Your task to perform on an android device: change notifications settings Image 0: 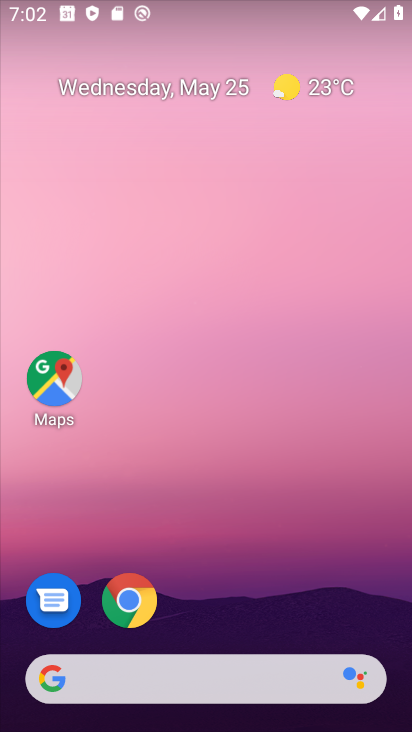
Step 0: drag from (268, 614) to (279, 258)
Your task to perform on an android device: change notifications settings Image 1: 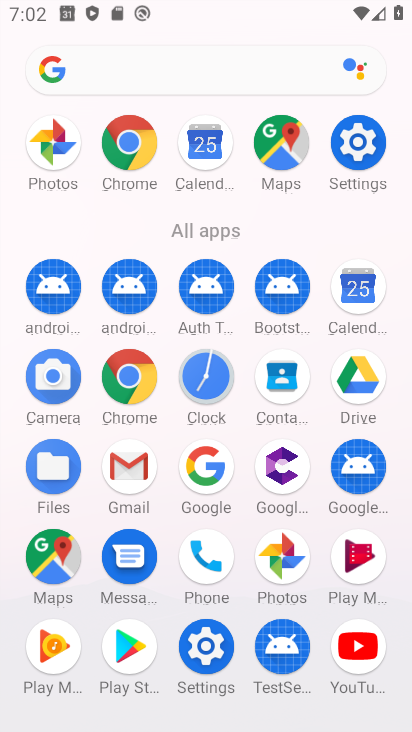
Step 1: click (357, 141)
Your task to perform on an android device: change notifications settings Image 2: 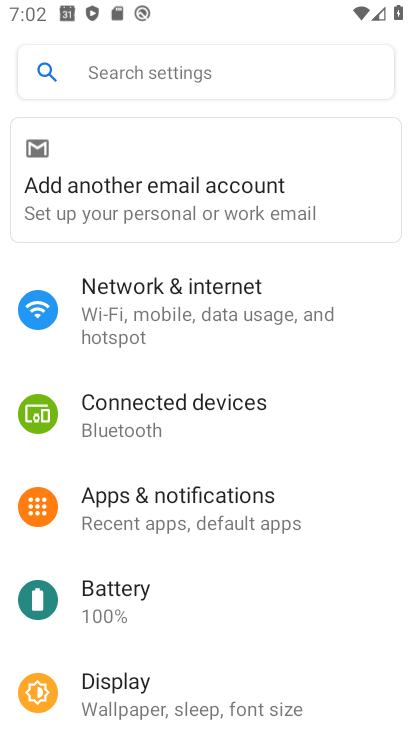
Step 2: click (208, 493)
Your task to perform on an android device: change notifications settings Image 3: 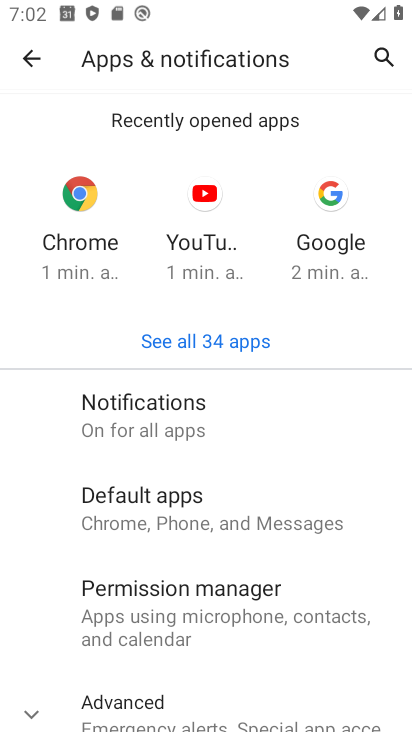
Step 3: click (172, 398)
Your task to perform on an android device: change notifications settings Image 4: 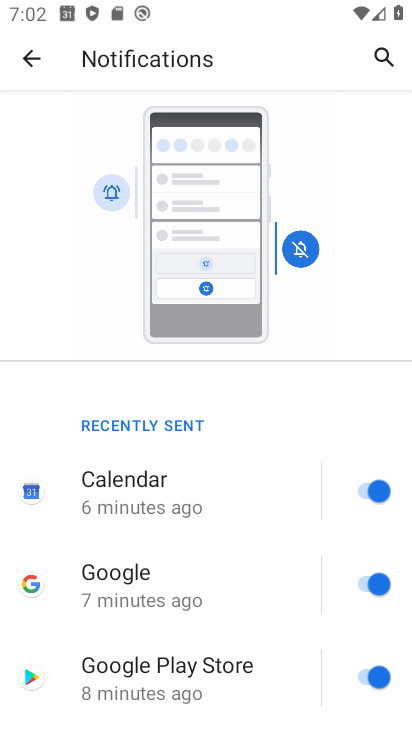
Step 4: drag from (152, 550) to (216, 453)
Your task to perform on an android device: change notifications settings Image 5: 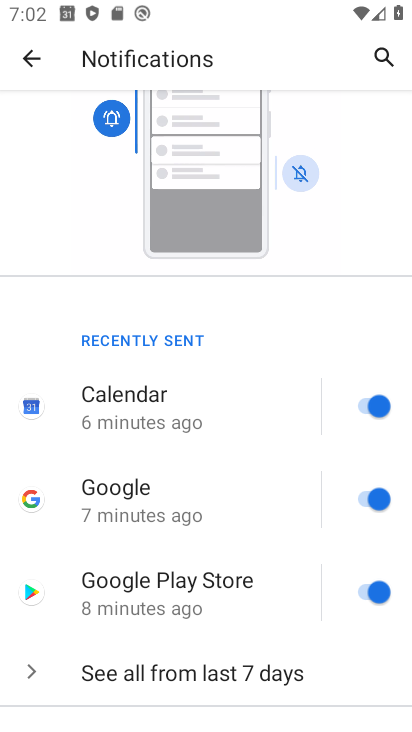
Step 5: drag from (163, 546) to (231, 454)
Your task to perform on an android device: change notifications settings Image 6: 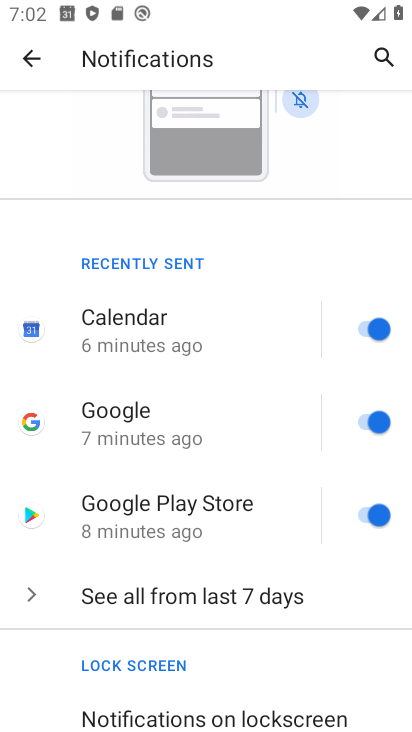
Step 6: drag from (151, 552) to (231, 431)
Your task to perform on an android device: change notifications settings Image 7: 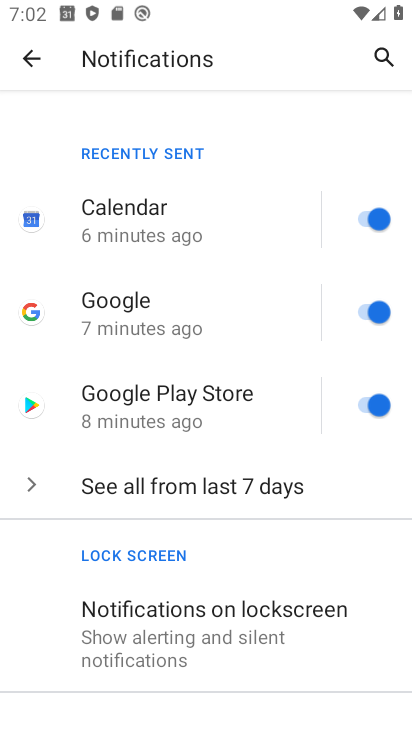
Step 7: drag from (168, 592) to (244, 468)
Your task to perform on an android device: change notifications settings Image 8: 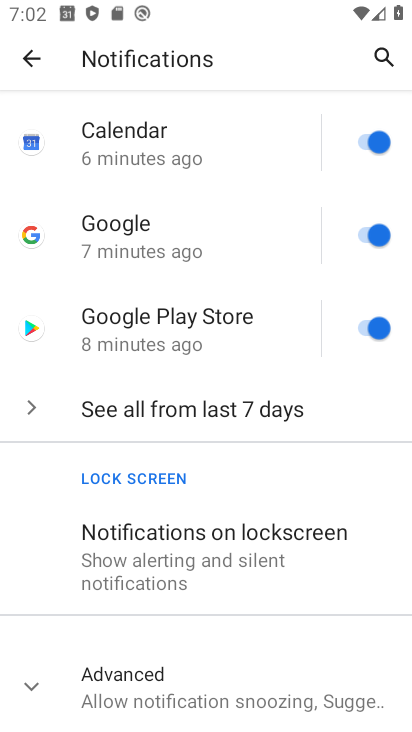
Step 8: drag from (175, 638) to (223, 556)
Your task to perform on an android device: change notifications settings Image 9: 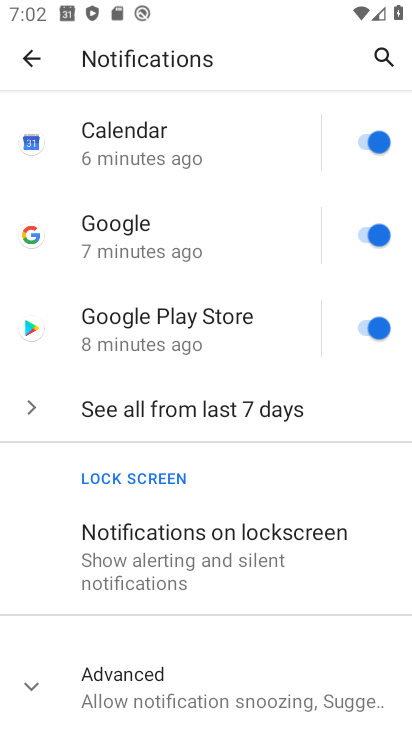
Step 9: click (173, 692)
Your task to perform on an android device: change notifications settings Image 10: 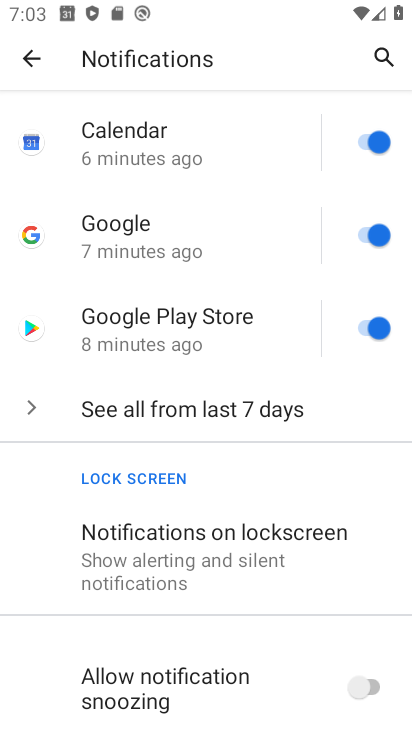
Step 10: drag from (171, 631) to (257, 494)
Your task to perform on an android device: change notifications settings Image 11: 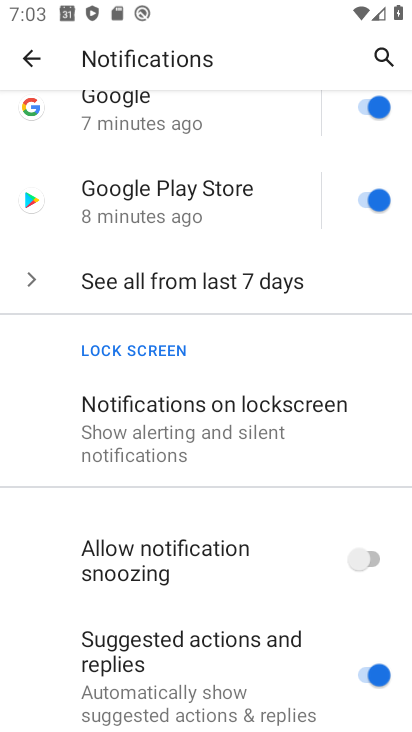
Step 11: drag from (300, 677) to (295, 564)
Your task to perform on an android device: change notifications settings Image 12: 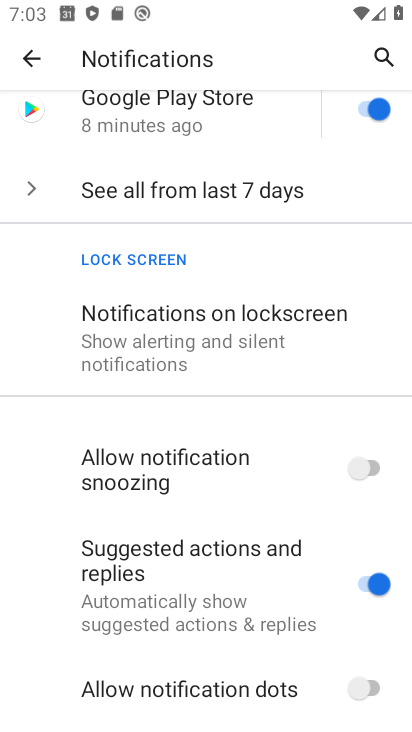
Step 12: click (355, 689)
Your task to perform on an android device: change notifications settings Image 13: 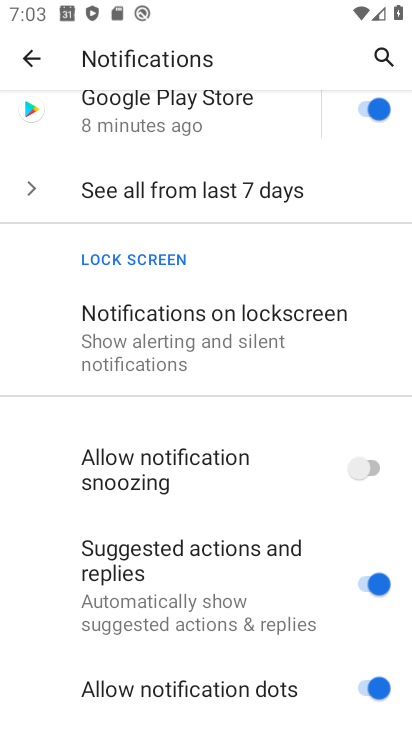
Step 13: task complete